Your task to perform on an android device: Go to Reddit.com Image 0: 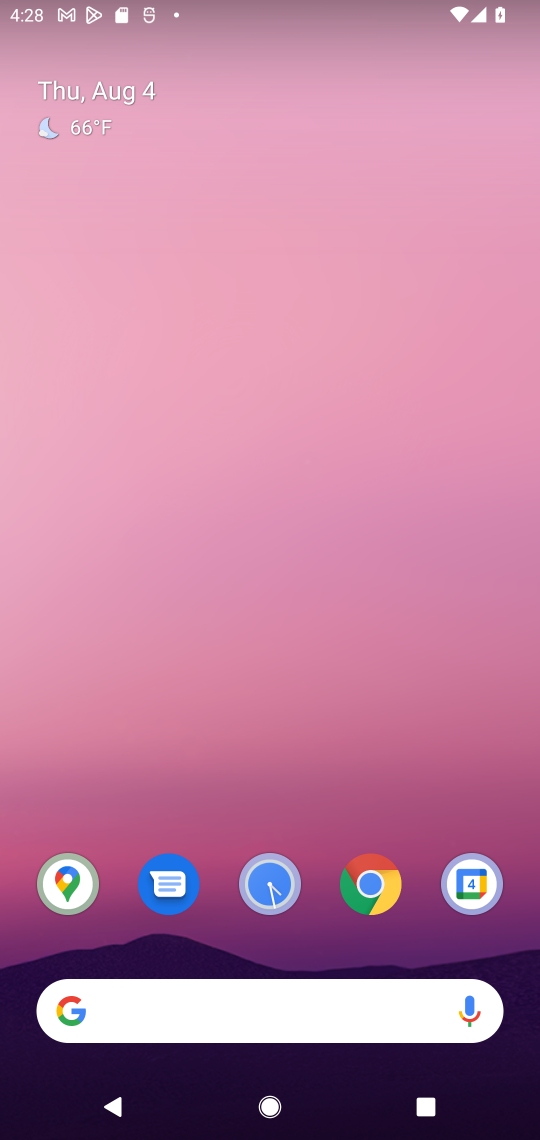
Step 0: click (363, 907)
Your task to perform on an android device: Go to Reddit.com Image 1: 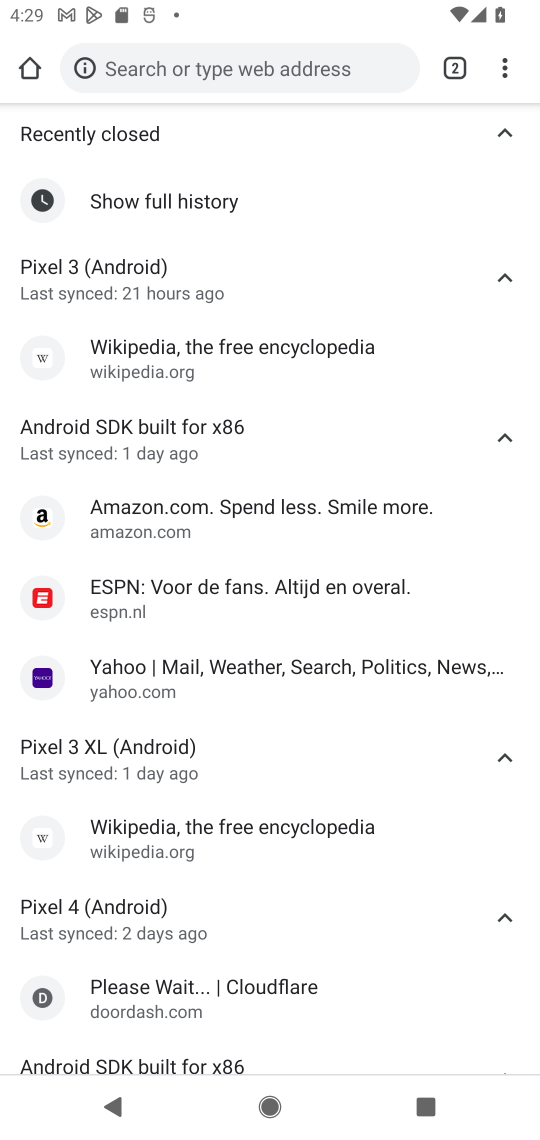
Step 1: click (358, 73)
Your task to perform on an android device: Go to Reddit.com Image 2: 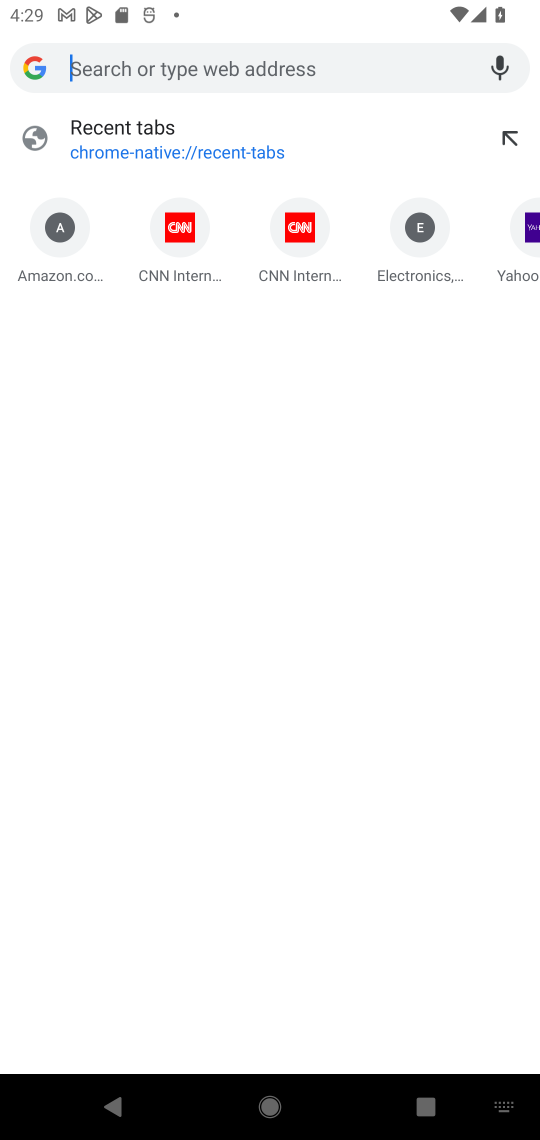
Step 2: type "reddit.com"
Your task to perform on an android device: Go to Reddit.com Image 3: 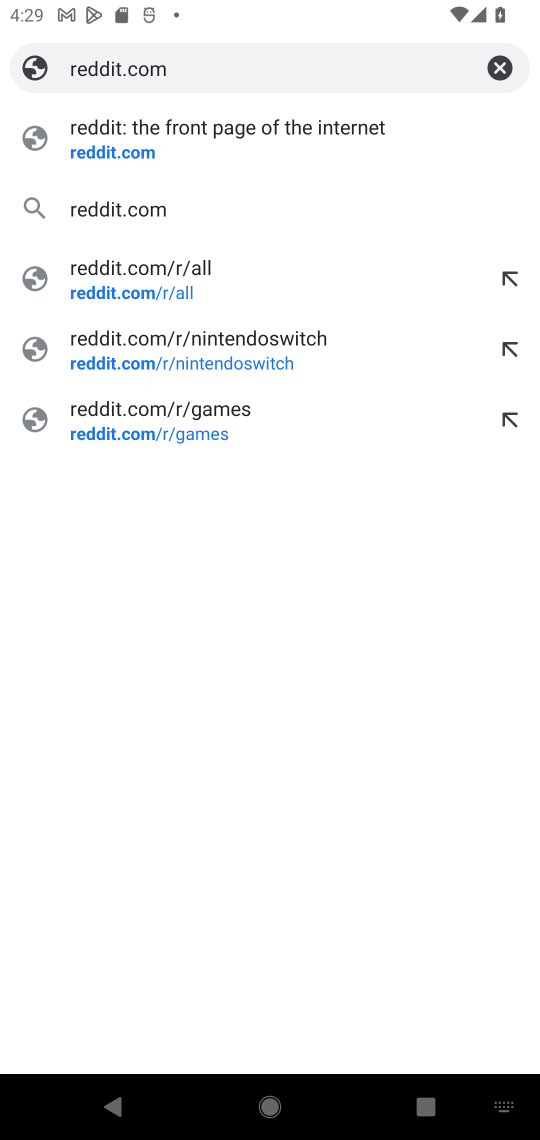
Step 3: click (296, 151)
Your task to perform on an android device: Go to Reddit.com Image 4: 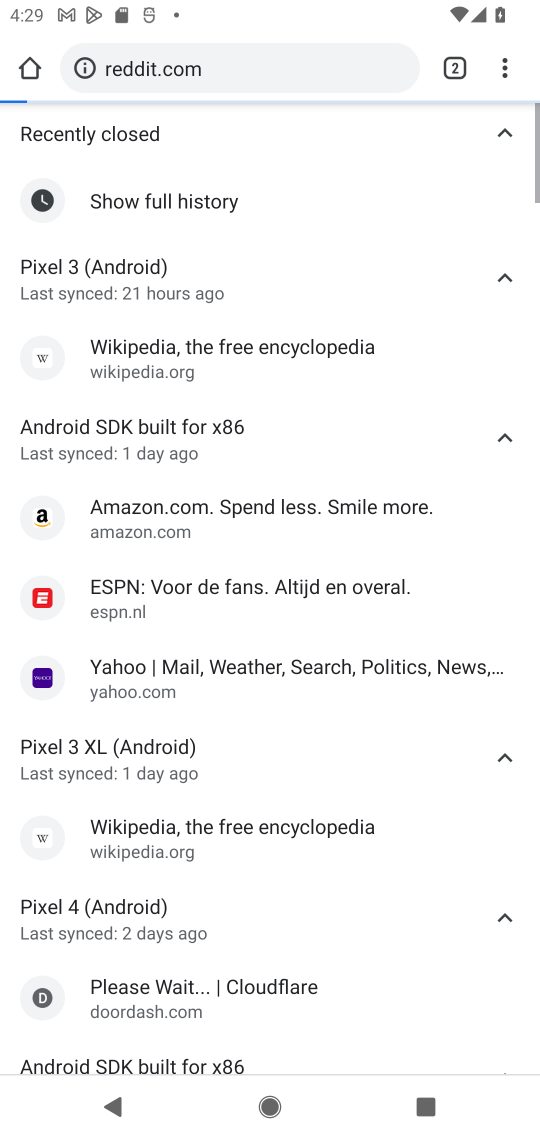
Step 4: task complete